Your task to perform on an android device: open app "Gboard" (install if not already installed) Image 0: 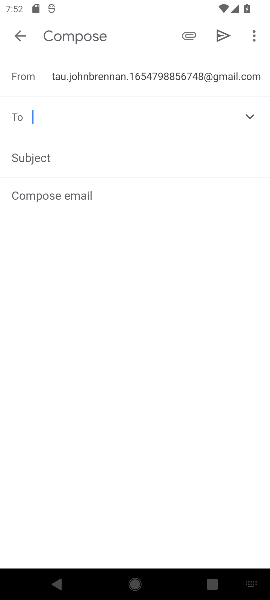
Step 0: press home button
Your task to perform on an android device: open app "Gboard" (install if not already installed) Image 1: 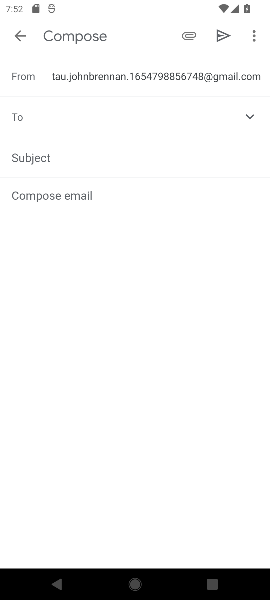
Step 1: press home button
Your task to perform on an android device: open app "Gboard" (install if not already installed) Image 2: 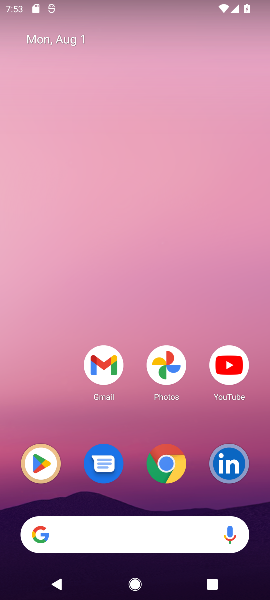
Step 2: click (145, 489)
Your task to perform on an android device: open app "Gboard" (install if not already installed) Image 3: 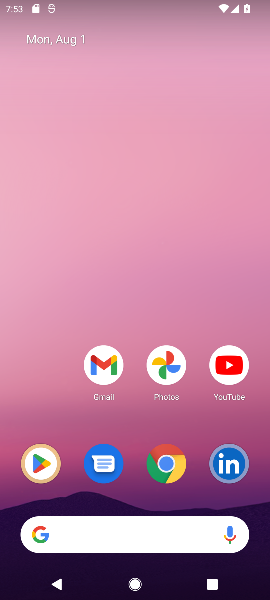
Step 3: drag from (145, 489) to (155, 277)
Your task to perform on an android device: open app "Gboard" (install if not already installed) Image 4: 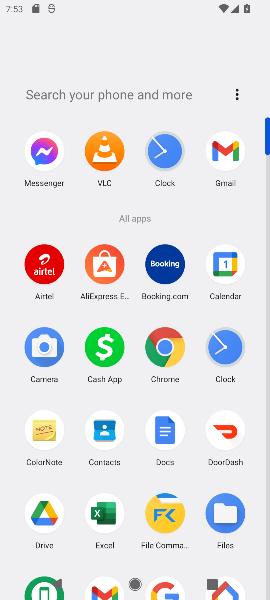
Step 4: click (155, 277)
Your task to perform on an android device: open app "Gboard" (install if not already installed) Image 5: 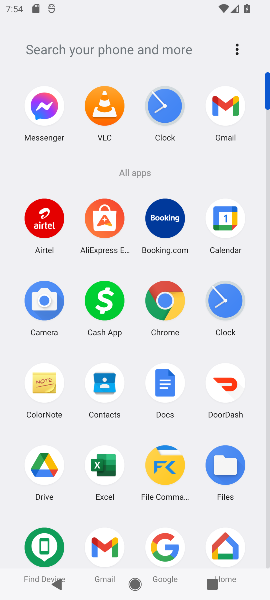
Step 5: task complete